Your task to perform on an android device: Search for sushi restaurants on Maps Image 0: 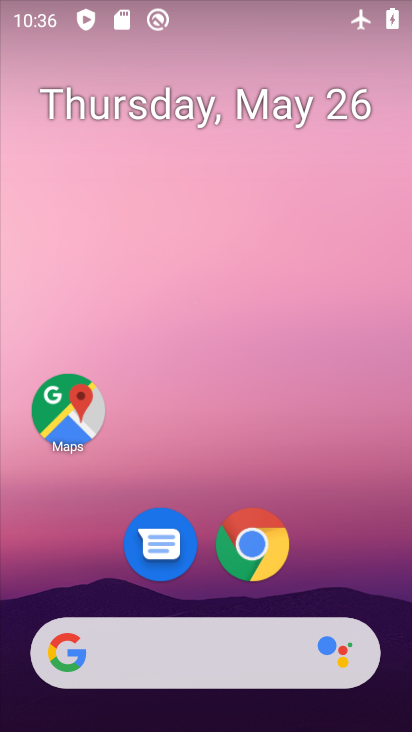
Step 0: drag from (365, 546) to (255, 12)
Your task to perform on an android device: Search for sushi restaurants on Maps Image 1: 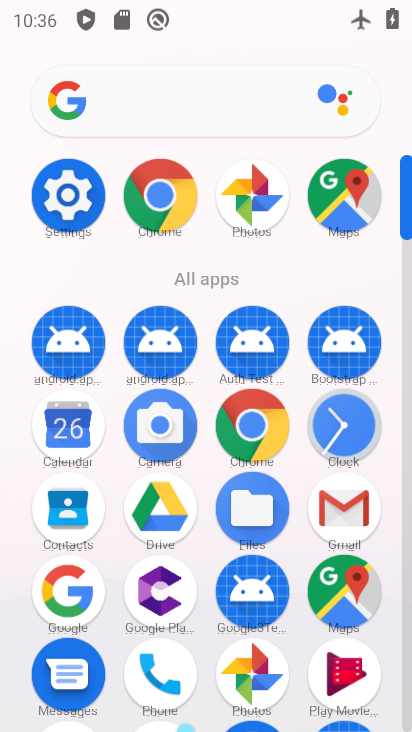
Step 1: drag from (3, 575) to (22, 312)
Your task to perform on an android device: Search for sushi restaurants on Maps Image 2: 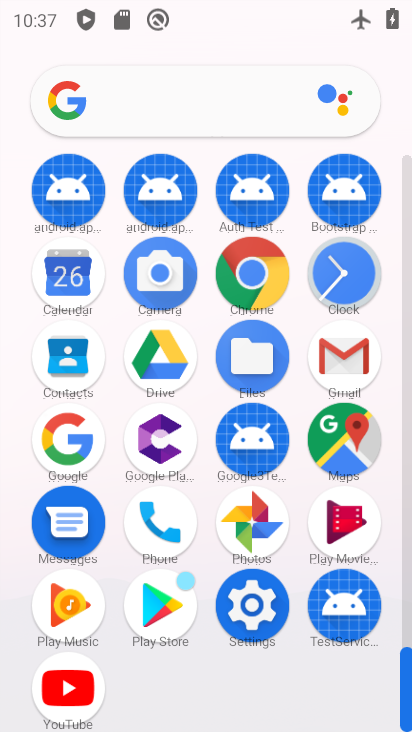
Step 2: click (342, 438)
Your task to perform on an android device: Search for sushi restaurants on Maps Image 3: 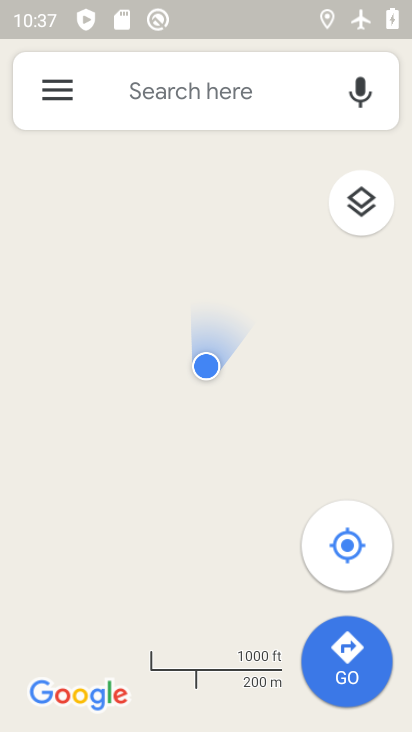
Step 3: click (288, 86)
Your task to perform on an android device: Search for sushi restaurants on Maps Image 4: 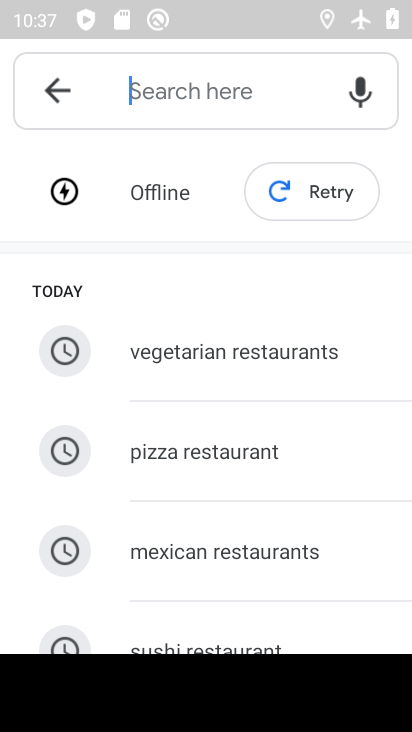
Step 4: drag from (304, 566) to (314, 337)
Your task to perform on an android device: Search for sushi restaurants on Maps Image 5: 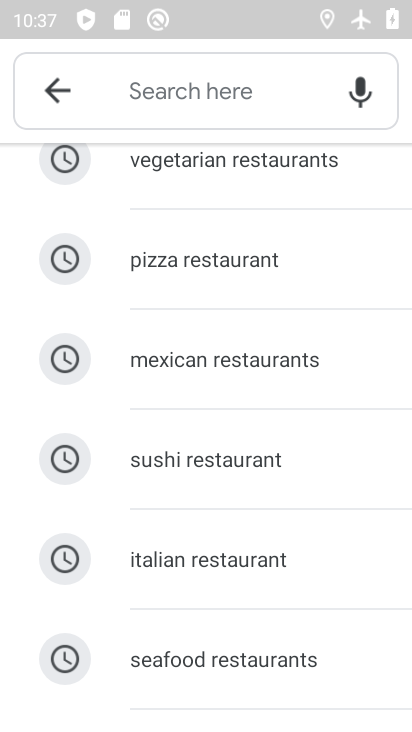
Step 5: click (223, 474)
Your task to perform on an android device: Search for sushi restaurants on Maps Image 6: 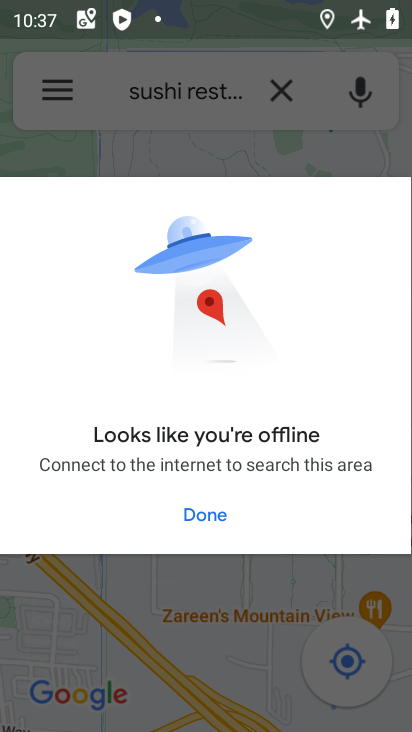
Step 6: task complete